Your task to perform on an android device: What is the news today? Image 0: 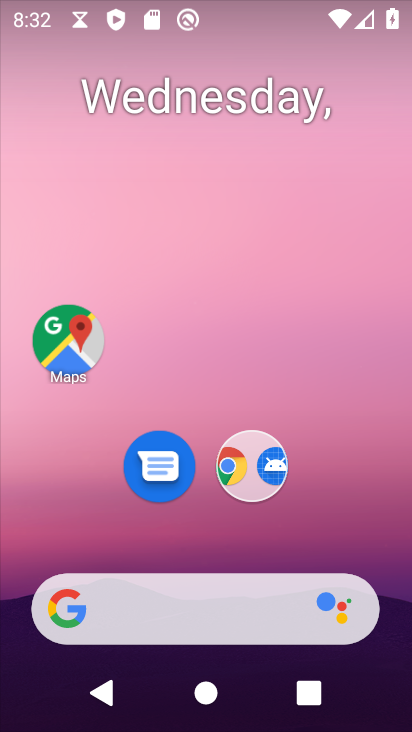
Step 0: drag from (303, 538) to (358, 100)
Your task to perform on an android device: What is the news today? Image 1: 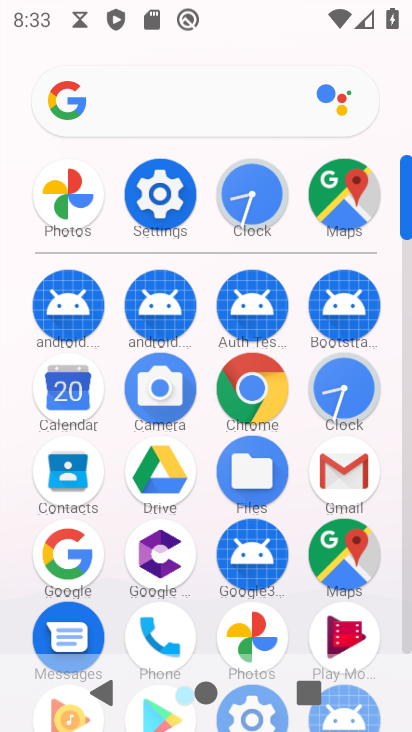
Step 1: click (190, 106)
Your task to perform on an android device: What is the news today? Image 2: 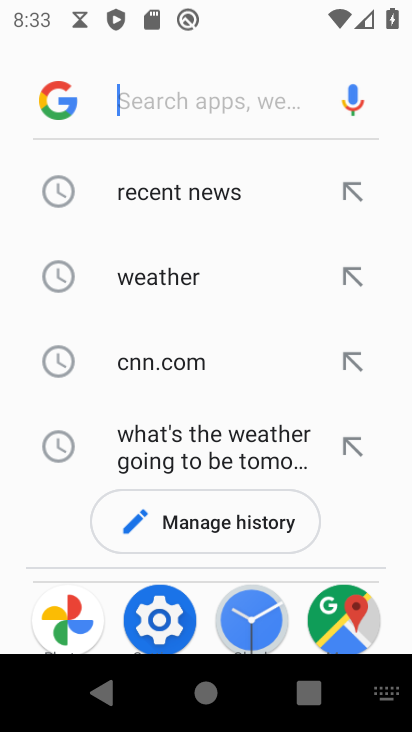
Step 2: type "what is the news today"
Your task to perform on an android device: What is the news today? Image 3: 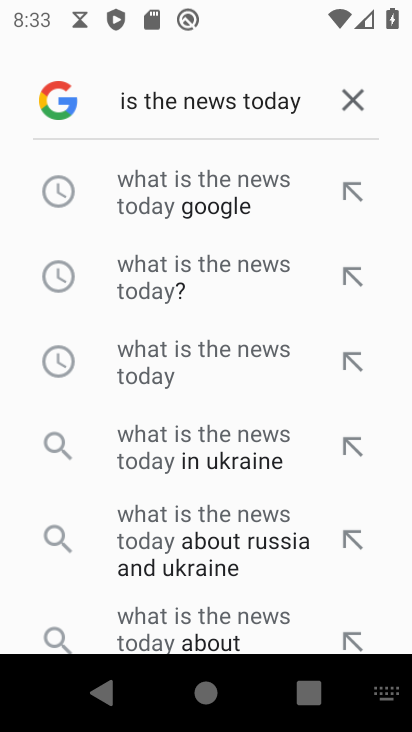
Step 3: click (207, 261)
Your task to perform on an android device: What is the news today? Image 4: 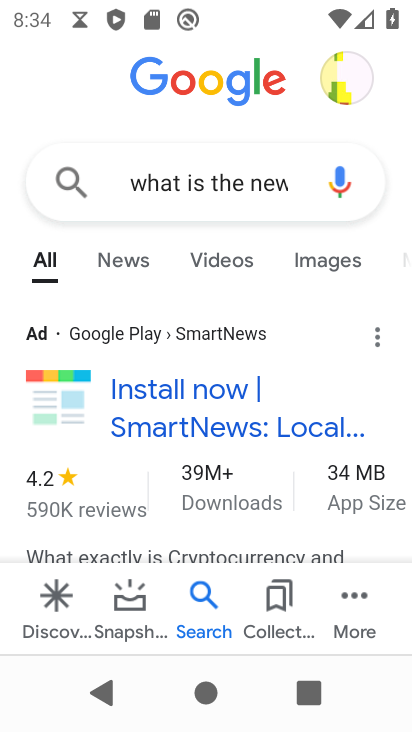
Step 4: click (133, 259)
Your task to perform on an android device: What is the news today? Image 5: 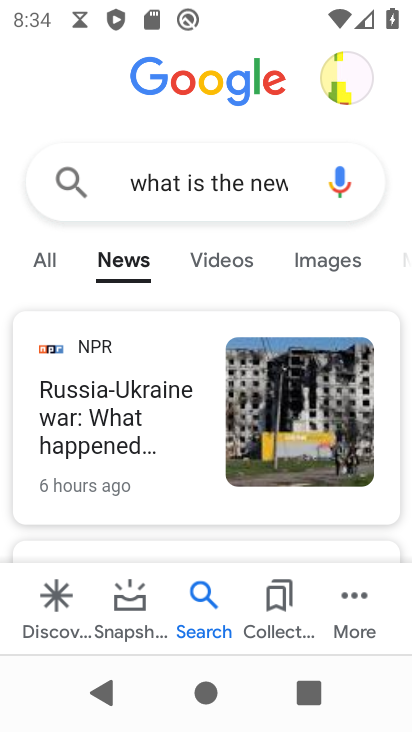
Step 5: task complete